Your task to perform on an android device: Open calendar and show me the first week of next month Image 0: 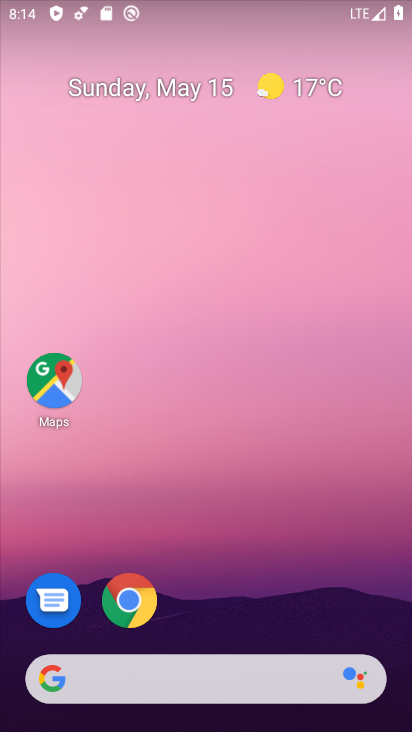
Step 0: drag from (266, 594) to (200, 86)
Your task to perform on an android device: Open calendar and show me the first week of next month Image 1: 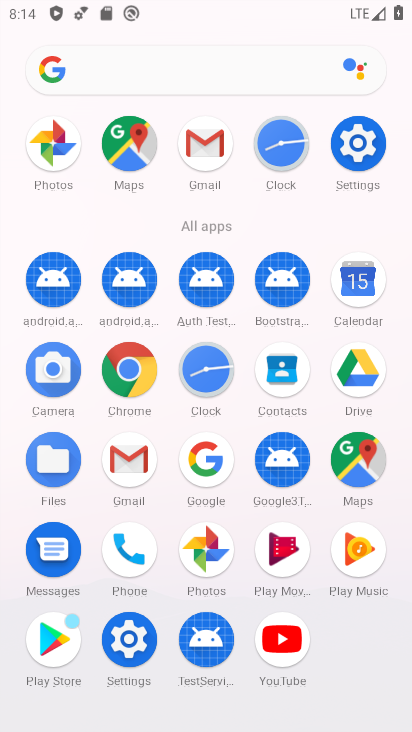
Step 1: click (358, 285)
Your task to perform on an android device: Open calendar and show me the first week of next month Image 2: 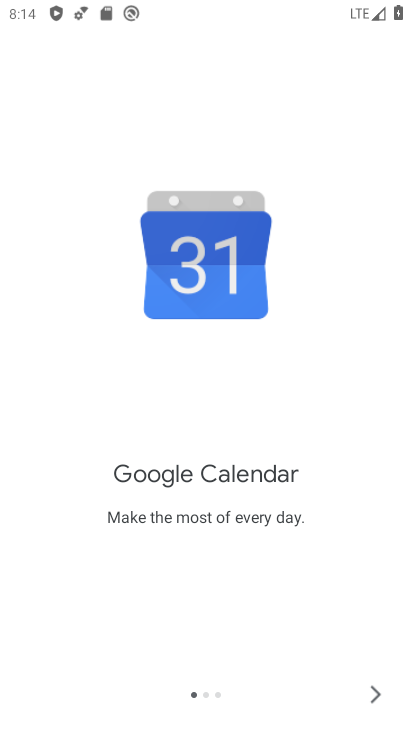
Step 2: click (369, 696)
Your task to perform on an android device: Open calendar and show me the first week of next month Image 3: 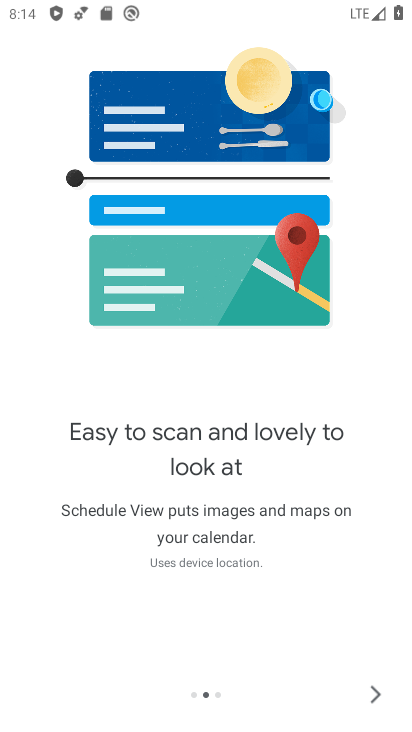
Step 3: click (370, 696)
Your task to perform on an android device: Open calendar and show me the first week of next month Image 4: 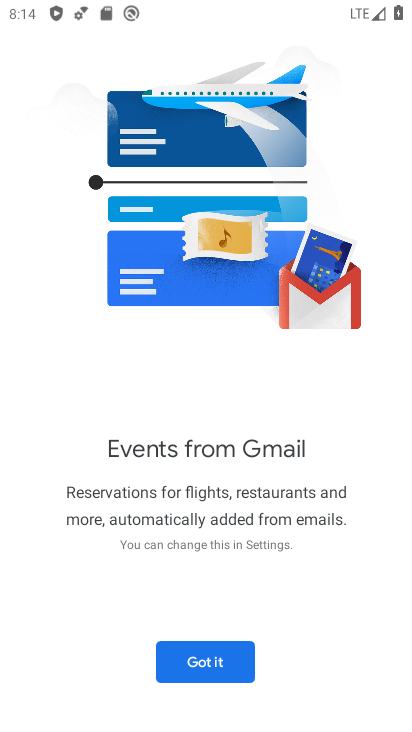
Step 4: click (204, 663)
Your task to perform on an android device: Open calendar and show me the first week of next month Image 5: 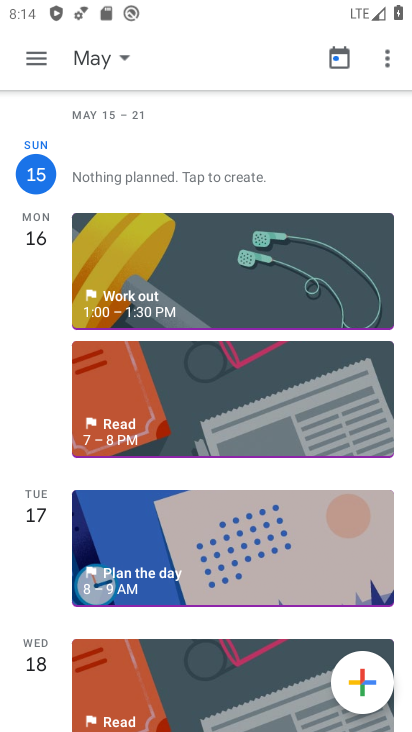
Step 5: click (123, 53)
Your task to perform on an android device: Open calendar and show me the first week of next month Image 6: 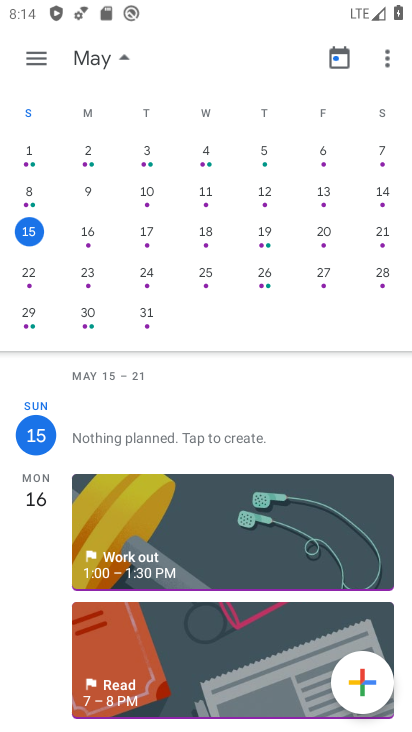
Step 6: drag from (355, 239) to (0, 238)
Your task to perform on an android device: Open calendar and show me the first week of next month Image 7: 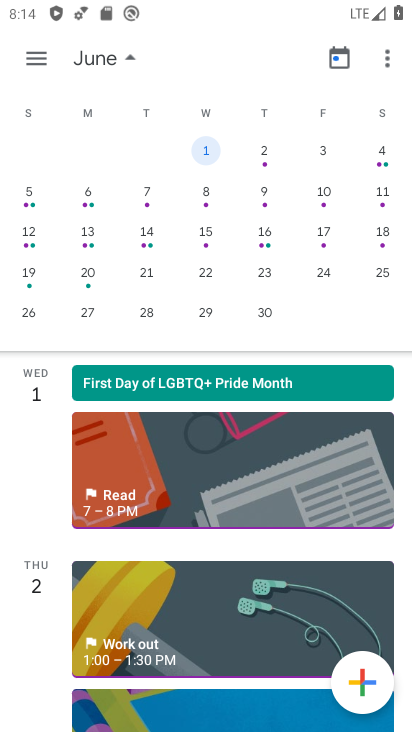
Step 7: click (86, 194)
Your task to perform on an android device: Open calendar and show me the first week of next month Image 8: 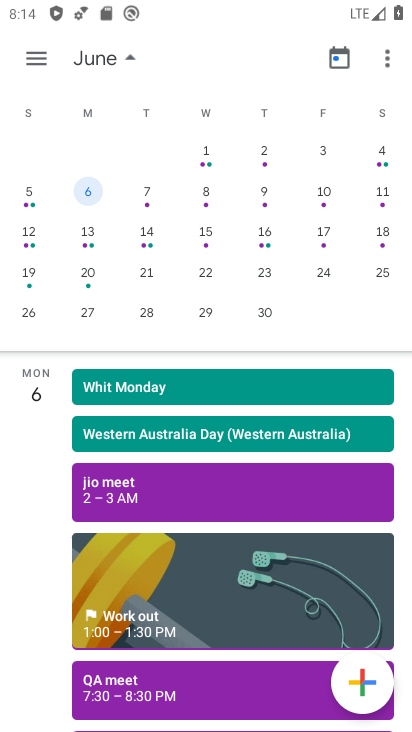
Step 8: click (26, 53)
Your task to perform on an android device: Open calendar and show me the first week of next month Image 9: 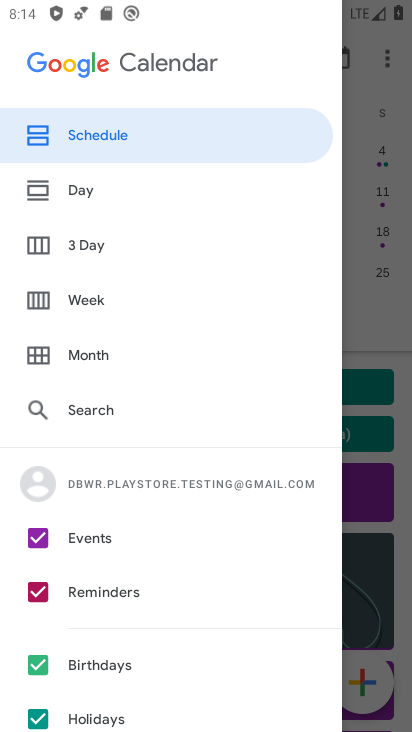
Step 9: click (96, 302)
Your task to perform on an android device: Open calendar and show me the first week of next month Image 10: 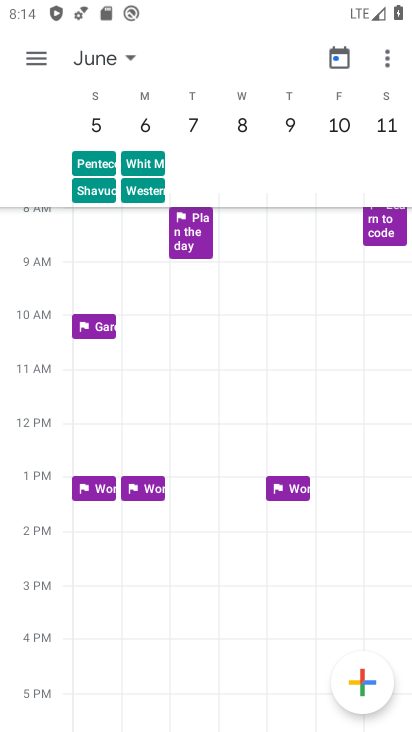
Step 10: task complete